Your task to perform on an android device: Go to sound settings Image 0: 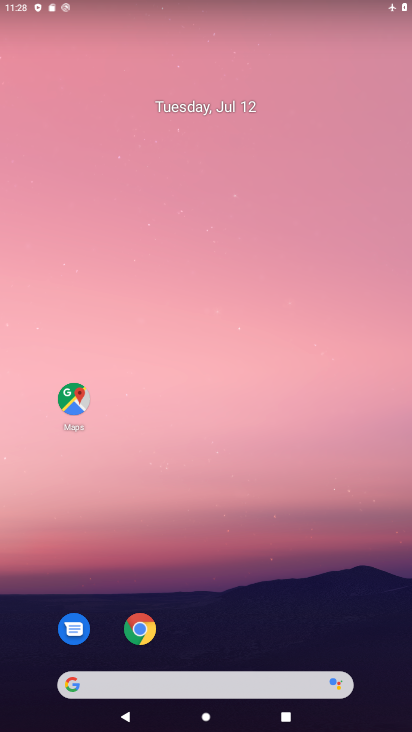
Step 0: drag from (226, 649) to (191, 175)
Your task to perform on an android device: Go to sound settings Image 1: 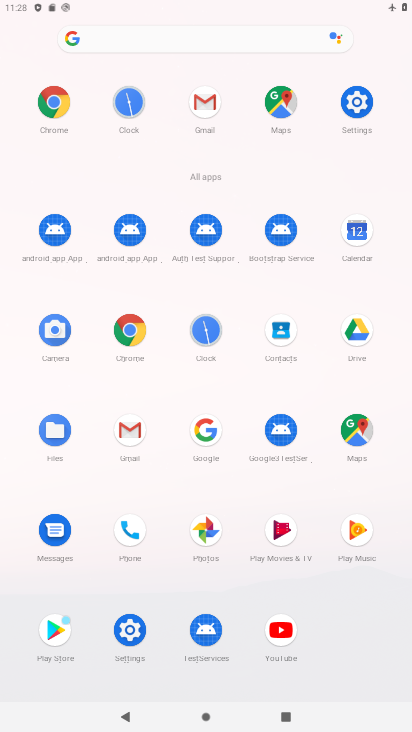
Step 1: click (350, 98)
Your task to perform on an android device: Go to sound settings Image 2: 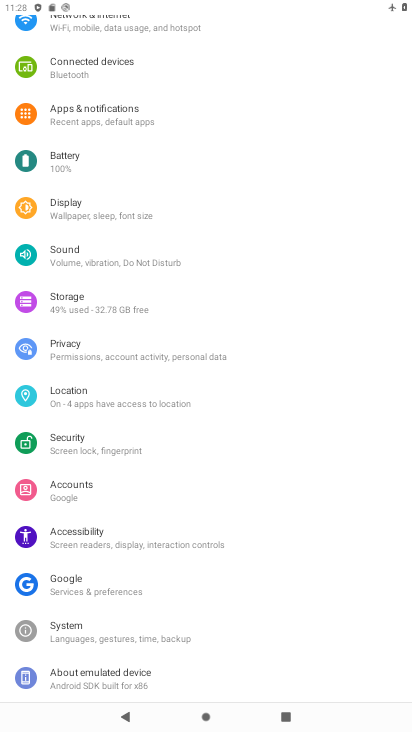
Step 2: click (68, 269)
Your task to perform on an android device: Go to sound settings Image 3: 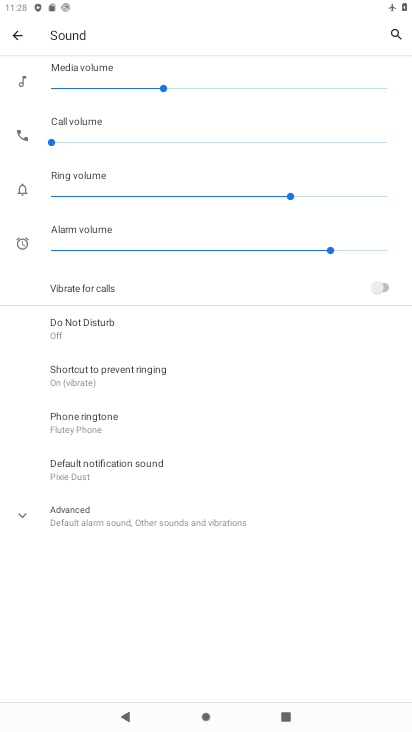
Step 3: click (56, 511)
Your task to perform on an android device: Go to sound settings Image 4: 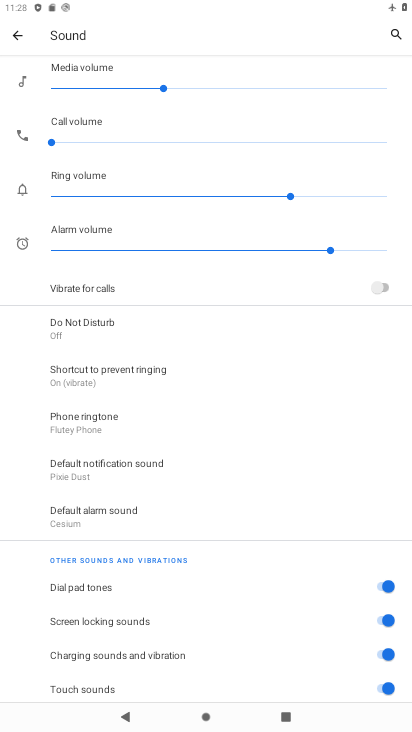
Step 4: task complete